Your task to perform on an android device: Go to Reddit.com Image 0: 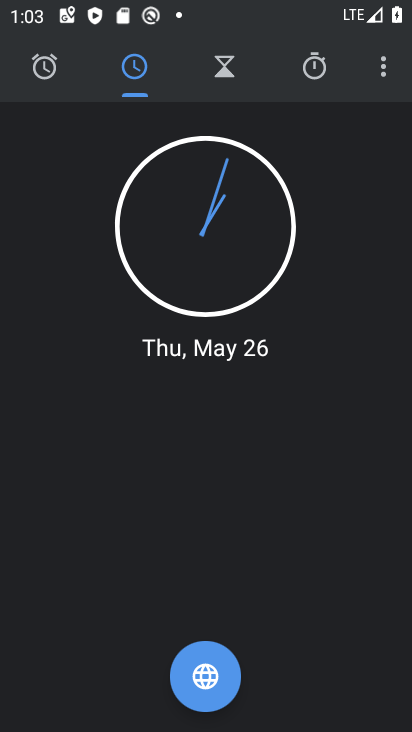
Step 0: press home button
Your task to perform on an android device: Go to Reddit.com Image 1: 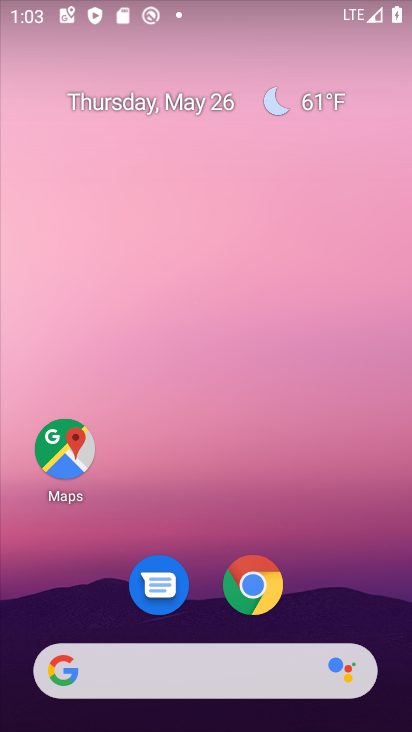
Step 1: click (234, 683)
Your task to perform on an android device: Go to Reddit.com Image 2: 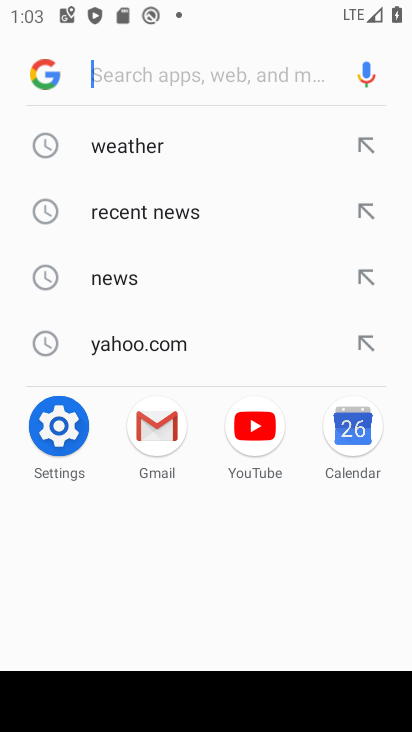
Step 2: type "reddit.com"
Your task to perform on an android device: Go to Reddit.com Image 3: 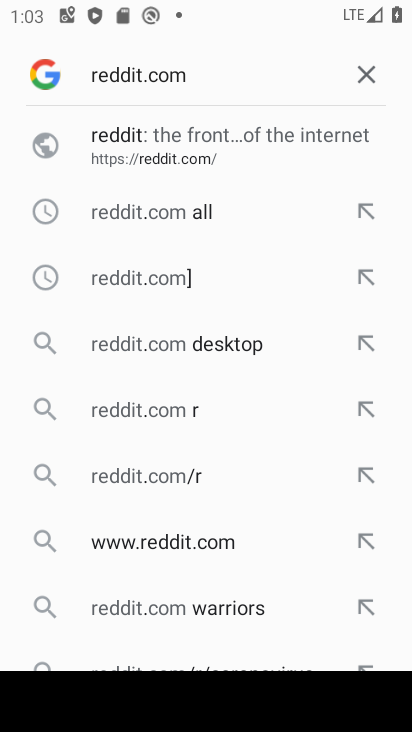
Step 3: click (142, 147)
Your task to perform on an android device: Go to Reddit.com Image 4: 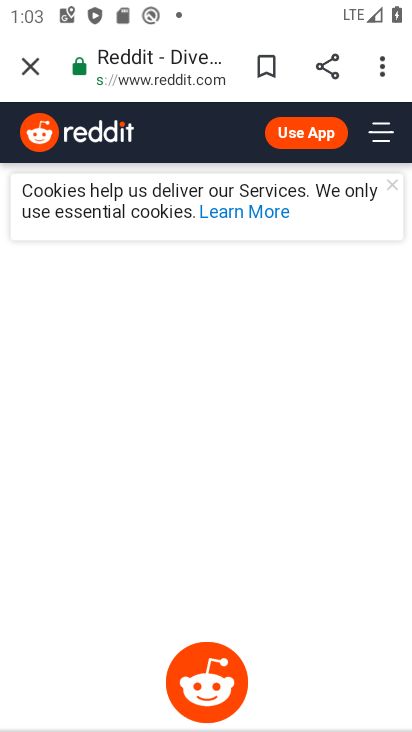
Step 4: task complete